Your task to perform on an android device: toggle location history Image 0: 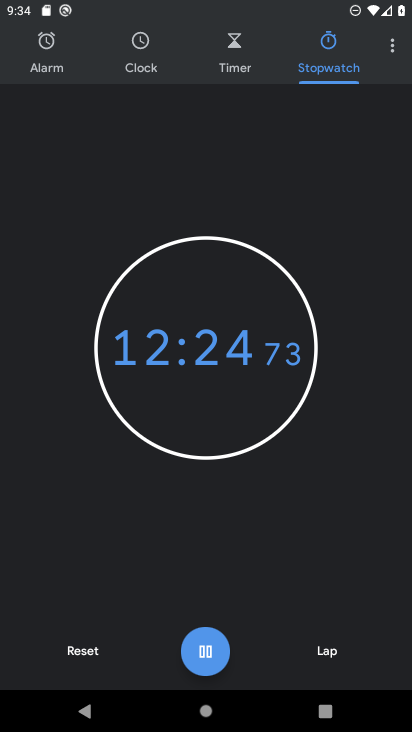
Step 0: press home button
Your task to perform on an android device: toggle location history Image 1: 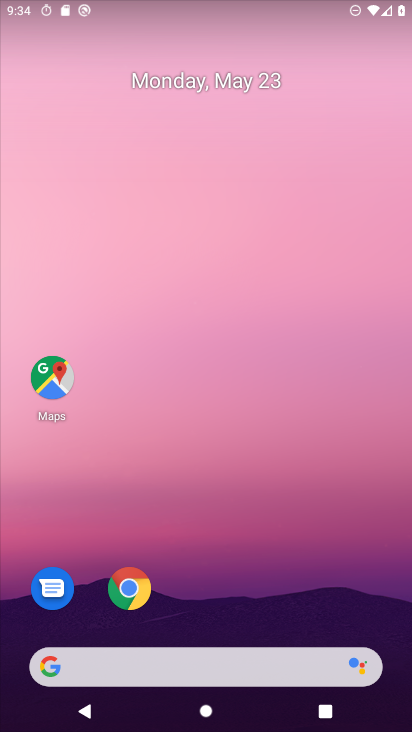
Step 1: drag from (389, 648) to (331, 243)
Your task to perform on an android device: toggle location history Image 2: 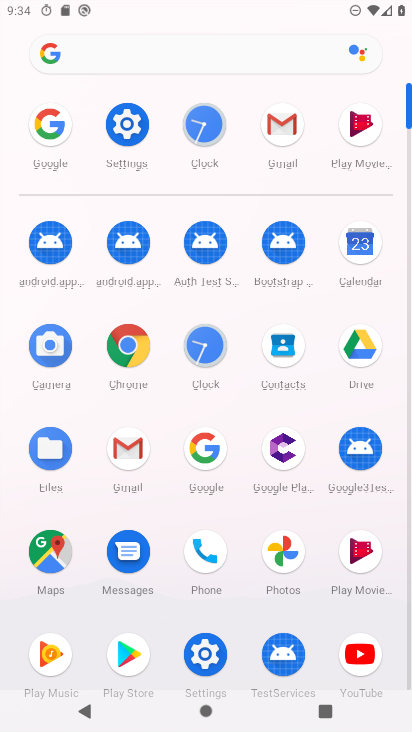
Step 2: click (202, 647)
Your task to perform on an android device: toggle location history Image 3: 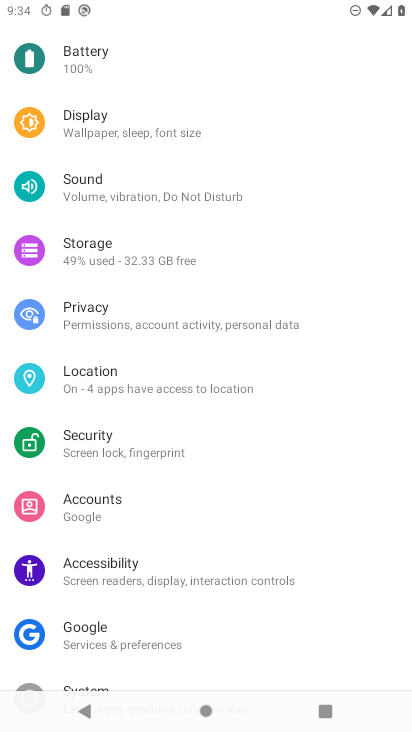
Step 3: click (105, 375)
Your task to perform on an android device: toggle location history Image 4: 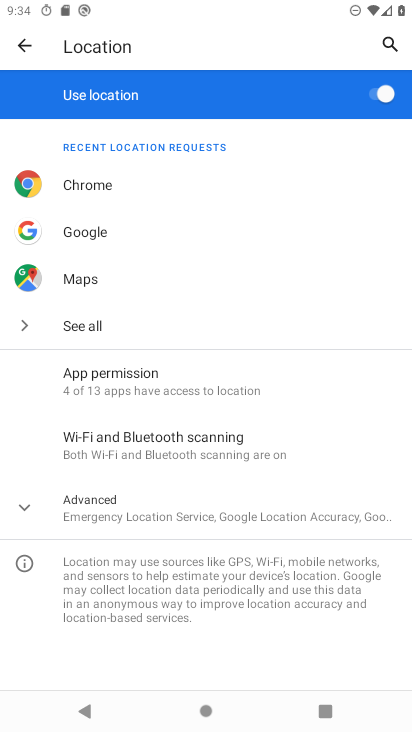
Step 4: click (9, 505)
Your task to perform on an android device: toggle location history Image 5: 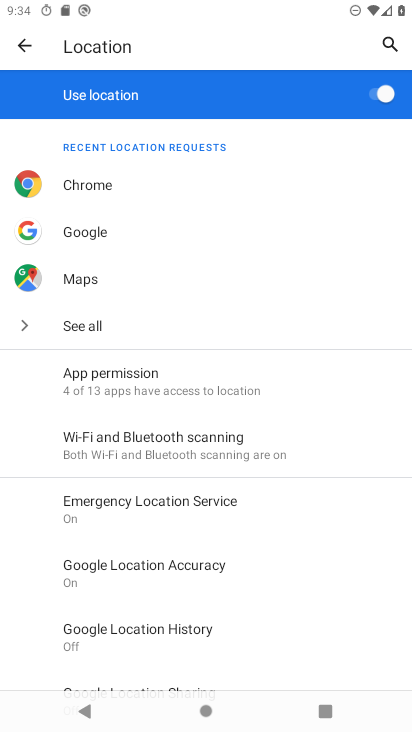
Step 5: drag from (294, 636) to (278, 454)
Your task to perform on an android device: toggle location history Image 6: 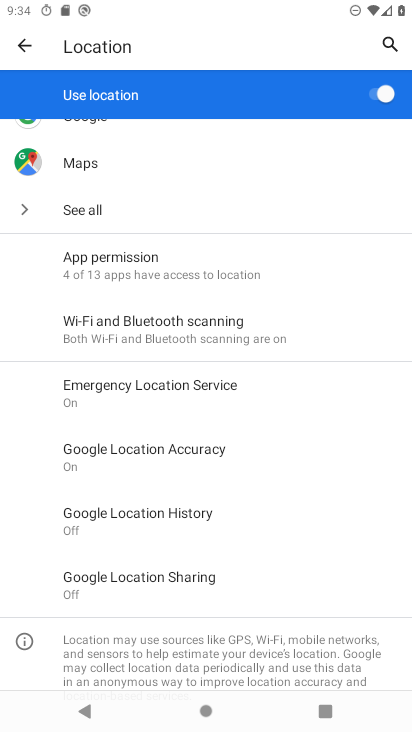
Step 6: click (91, 522)
Your task to perform on an android device: toggle location history Image 7: 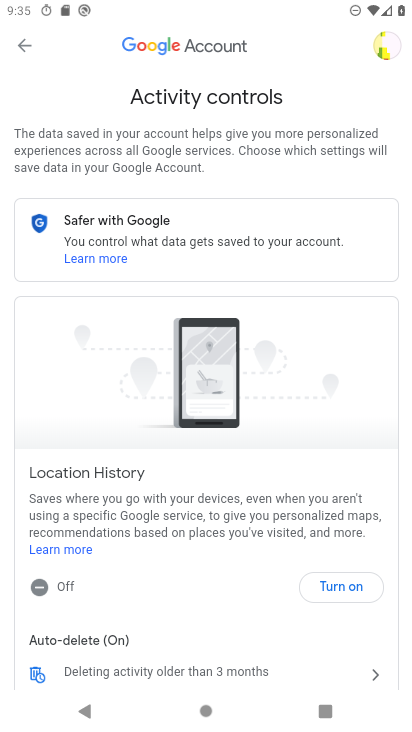
Step 7: click (350, 584)
Your task to perform on an android device: toggle location history Image 8: 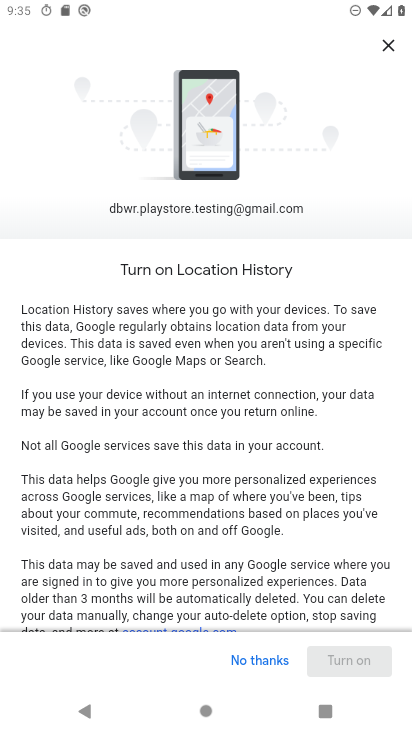
Step 8: drag from (263, 576) to (262, 155)
Your task to perform on an android device: toggle location history Image 9: 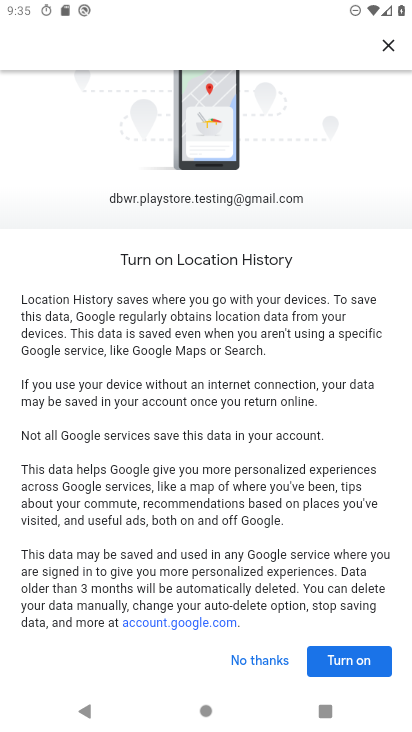
Step 9: click (370, 651)
Your task to perform on an android device: toggle location history Image 10: 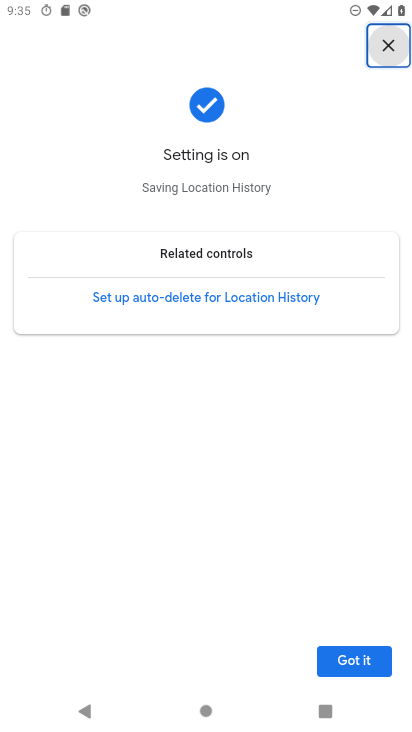
Step 10: click (370, 666)
Your task to perform on an android device: toggle location history Image 11: 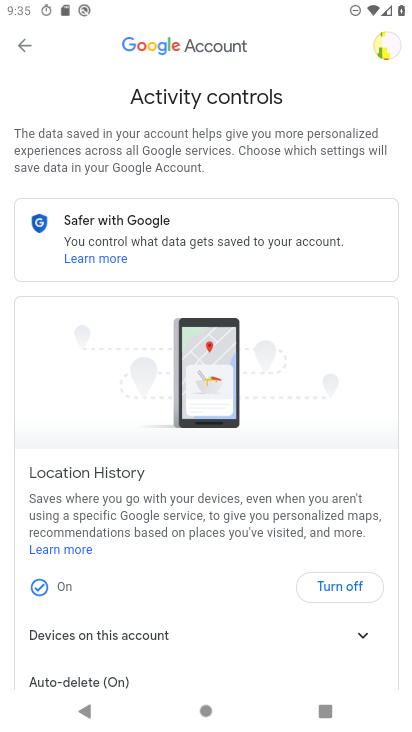
Step 11: task complete